Your task to perform on an android device: turn off translation in the chrome app Image 0: 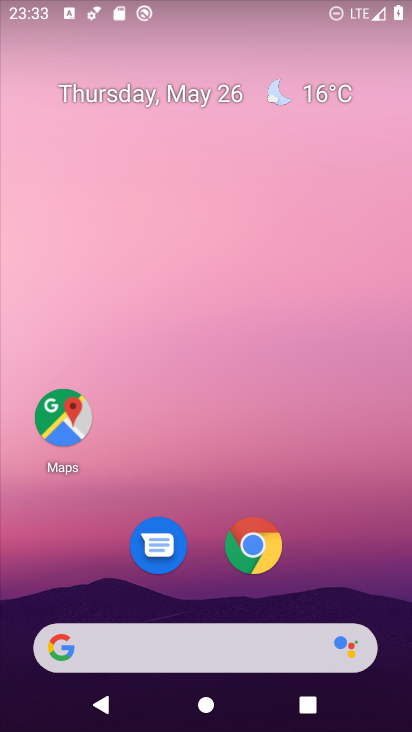
Step 0: press home button
Your task to perform on an android device: turn off translation in the chrome app Image 1: 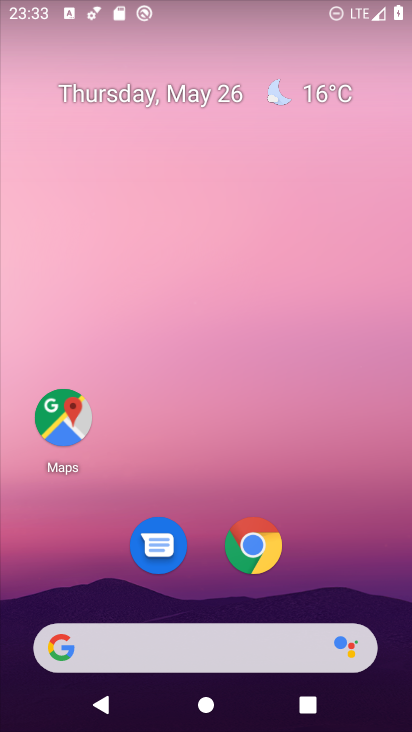
Step 1: click (242, 537)
Your task to perform on an android device: turn off translation in the chrome app Image 2: 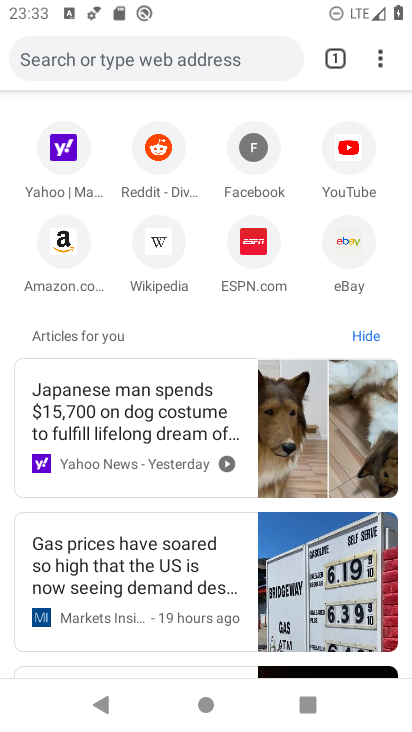
Step 2: drag from (387, 61) to (175, 499)
Your task to perform on an android device: turn off translation in the chrome app Image 3: 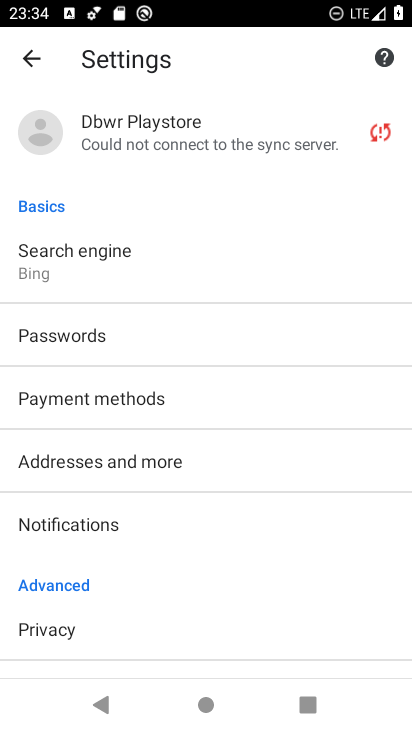
Step 3: drag from (204, 565) to (168, 201)
Your task to perform on an android device: turn off translation in the chrome app Image 4: 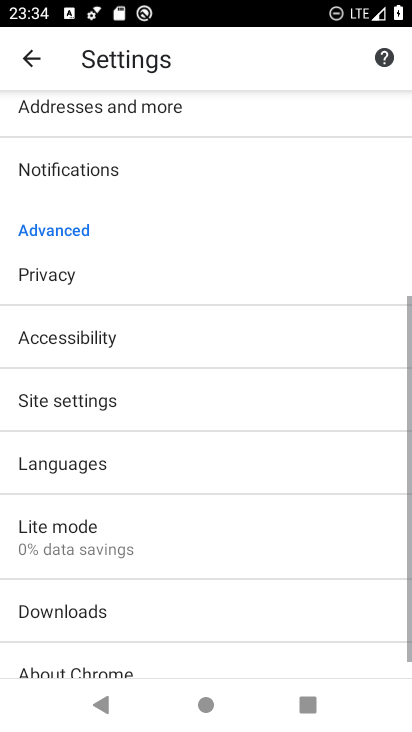
Step 4: drag from (263, 602) to (66, 462)
Your task to perform on an android device: turn off translation in the chrome app Image 5: 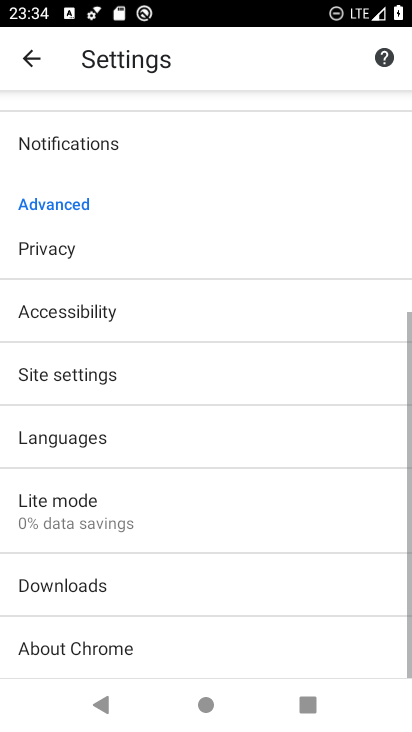
Step 5: click (72, 441)
Your task to perform on an android device: turn off translation in the chrome app Image 6: 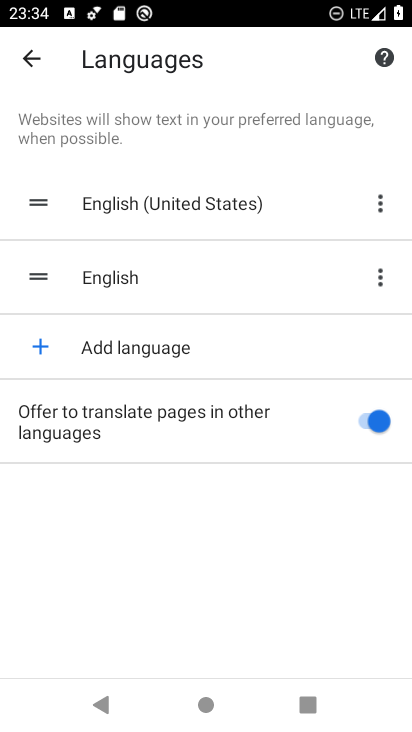
Step 6: click (381, 418)
Your task to perform on an android device: turn off translation in the chrome app Image 7: 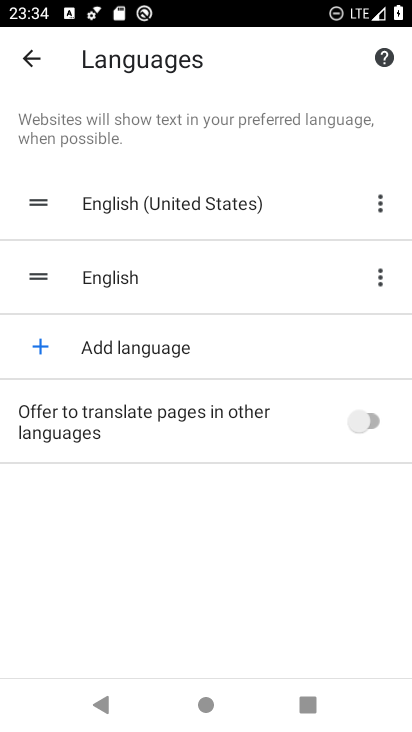
Step 7: task complete